Your task to perform on an android device: Open the calendar and show me this week's events Image 0: 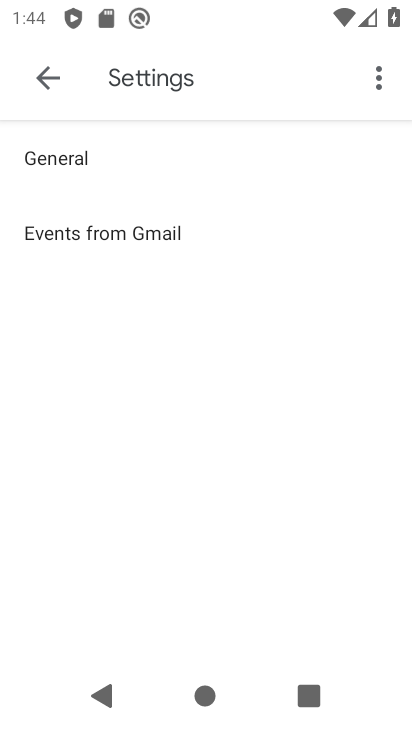
Step 0: press home button
Your task to perform on an android device: Open the calendar and show me this week's events Image 1: 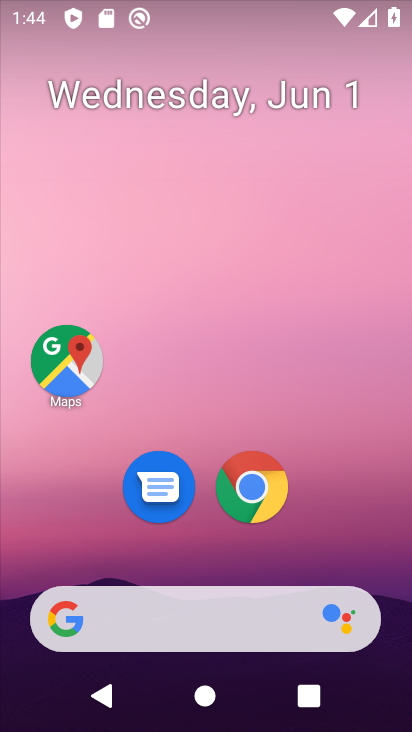
Step 1: drag from (388, 545) to (375, 215)
Your task to perform on an android device: Open the calendar and show me this week's events Image 2: 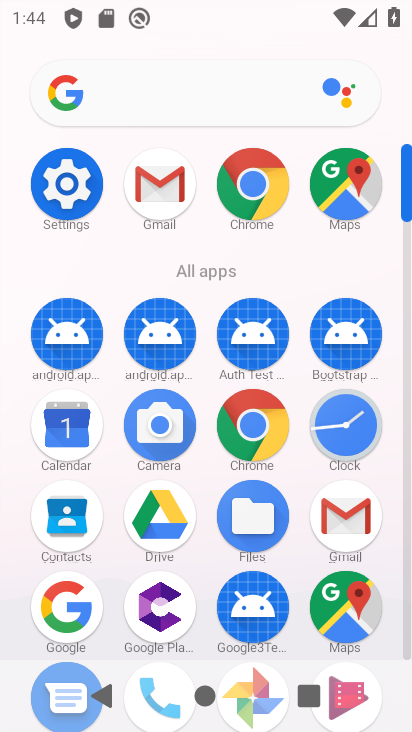
Step 2: click (71, 429)
Your task to perform on an android device: Open the calendar and show me this week's events Image 3: 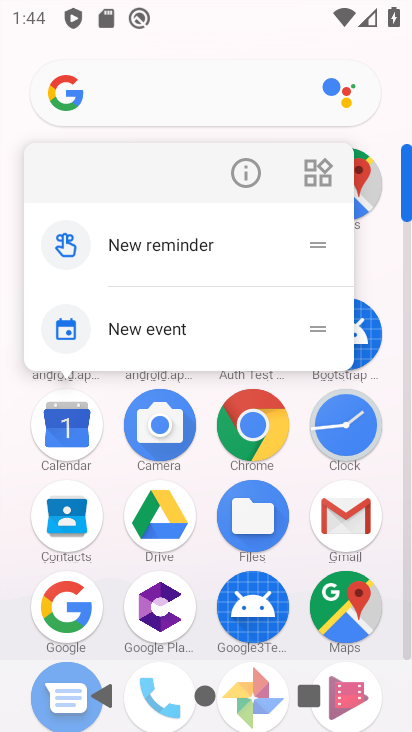
Step 3: click (72, 428)
Your task to perform on an android device: Open the calendar and show me this week's events Image 4: 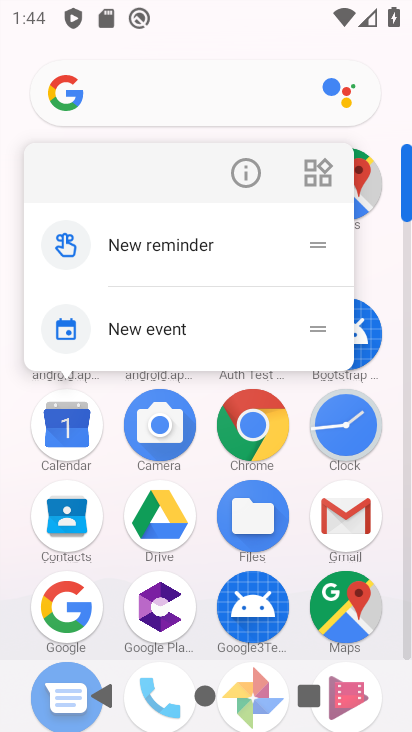
Step 4: click (72, 428)
Your task to perform on an android device: Open the calendar and show me this week's events Image 5: 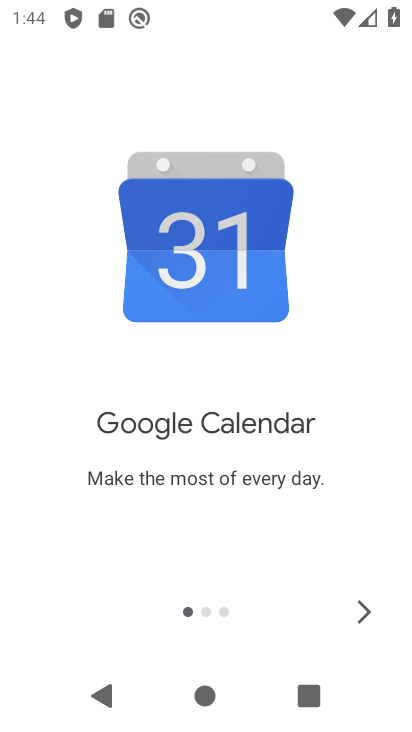
Step 5: click (353, 610)
Your task to perform on an android device: Open the calendar and show me this week's events Image 6: 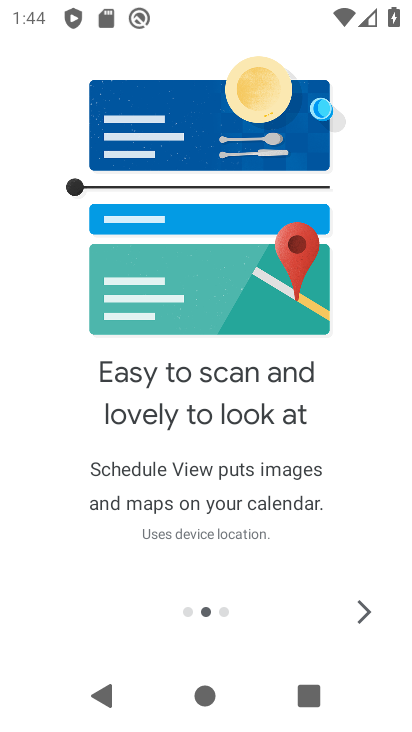
Step 6: click (367, 613)
Your task to perform on an android device: Open the calendar and show me this week's events Image 7: 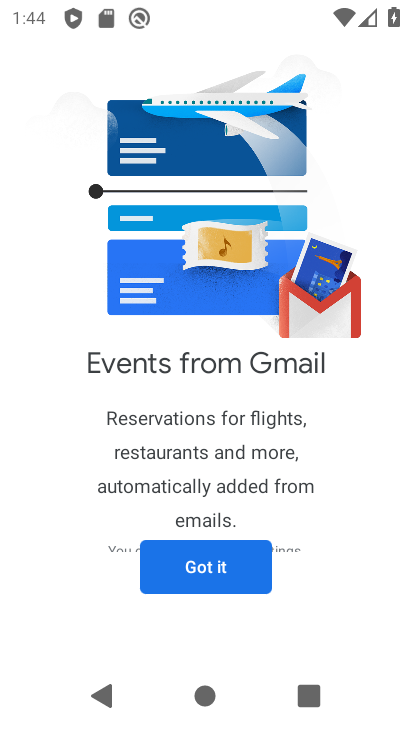
Step 7: click (225, 556)
Your task to perform on an android device: Open the calendar and show me this week's events Image 8: 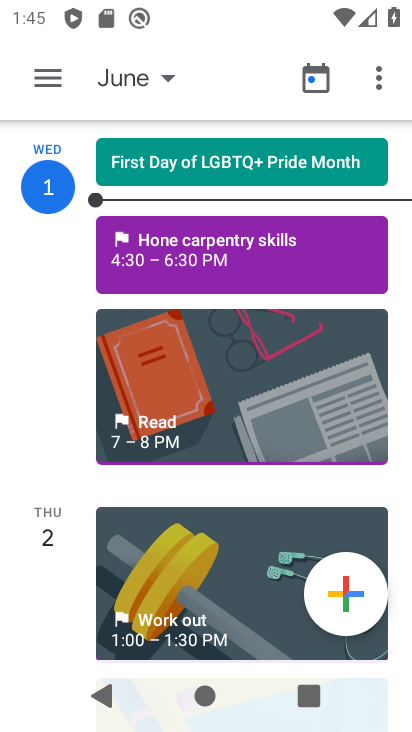
Step 8: task complete